Your task to perform on an android device: Add "acer nitro" to the cart on target.com, then select checkout. Image 0: 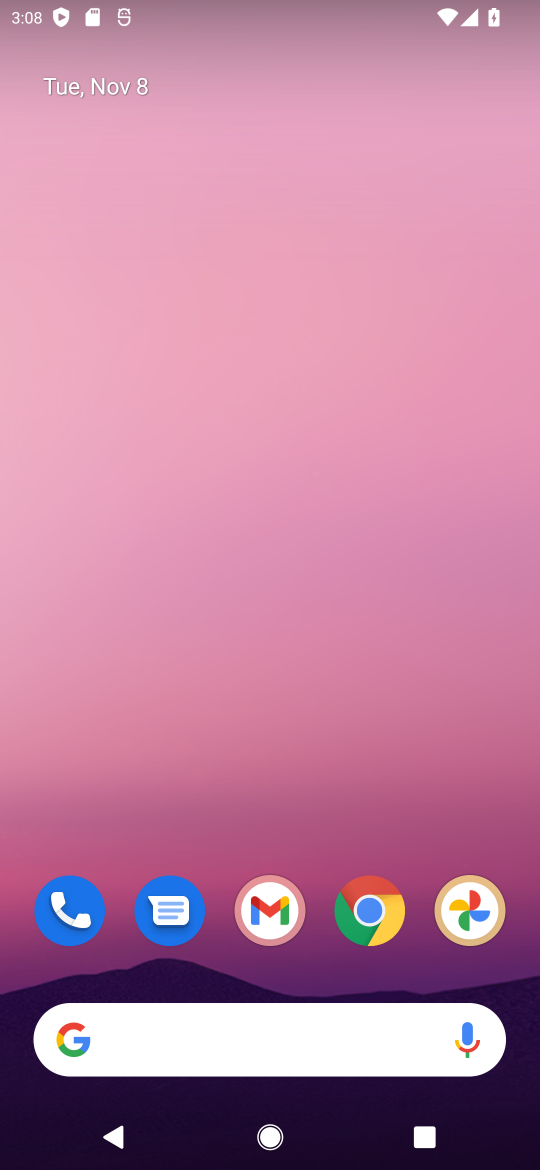
Step 0: drag from (321, 982) to (412, 30)
Your task to perform on an android device: Add "acer nitro" to the cart on target.com, then select checkout. Image 1: 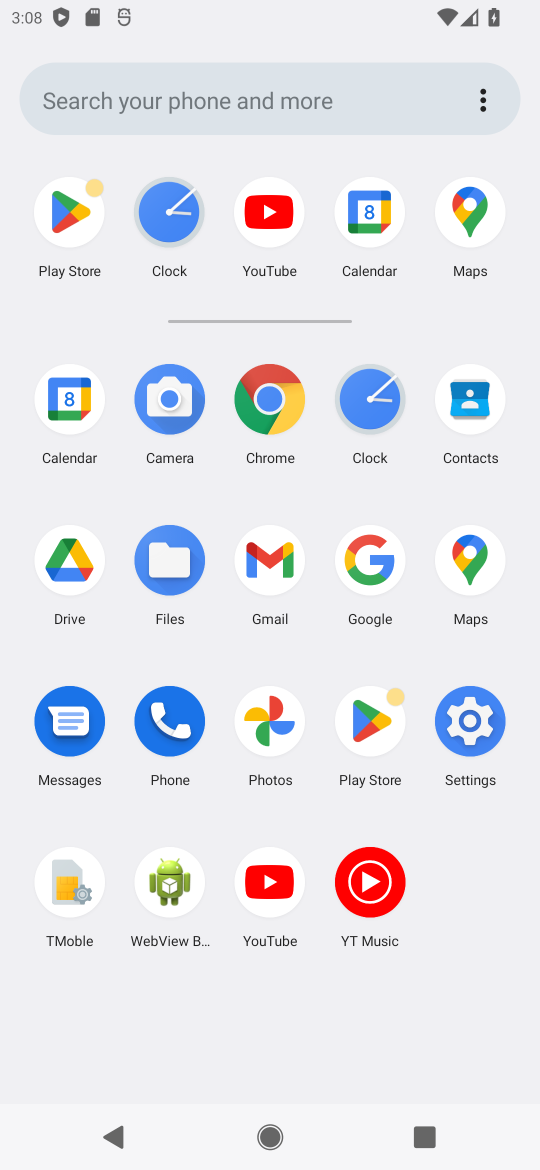
Step 1: click (260, 401)
Your task to perform on an android device: Add "acer nitro" to the cart on target.com, then select checkout. Image 2: 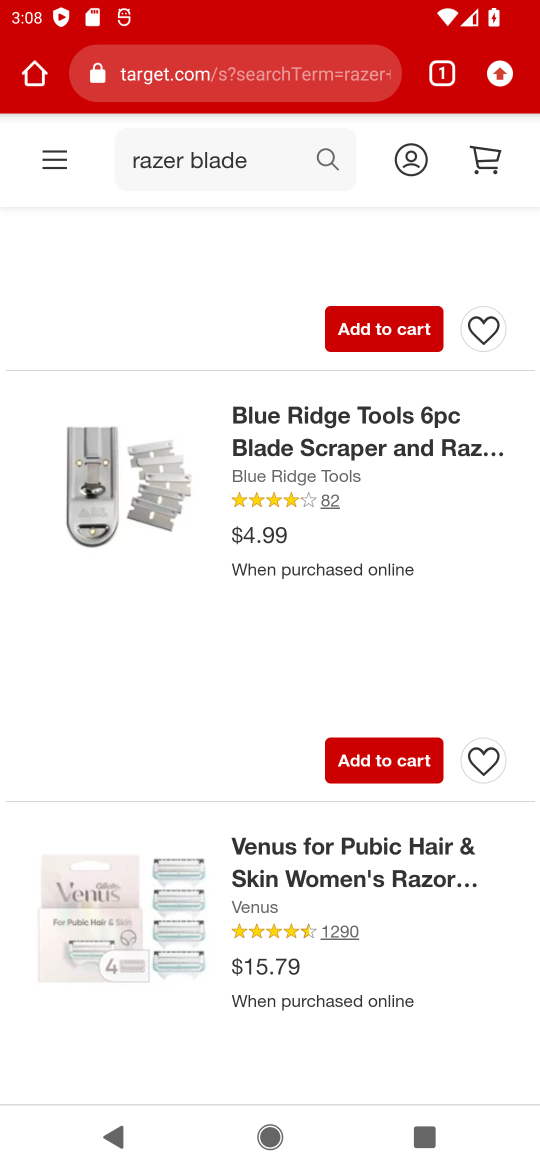
Step 2: click (272, 81)
Your task to perform on an android device: Add "acer nitro" to the cart on target.com, then select checkout. Image 3: 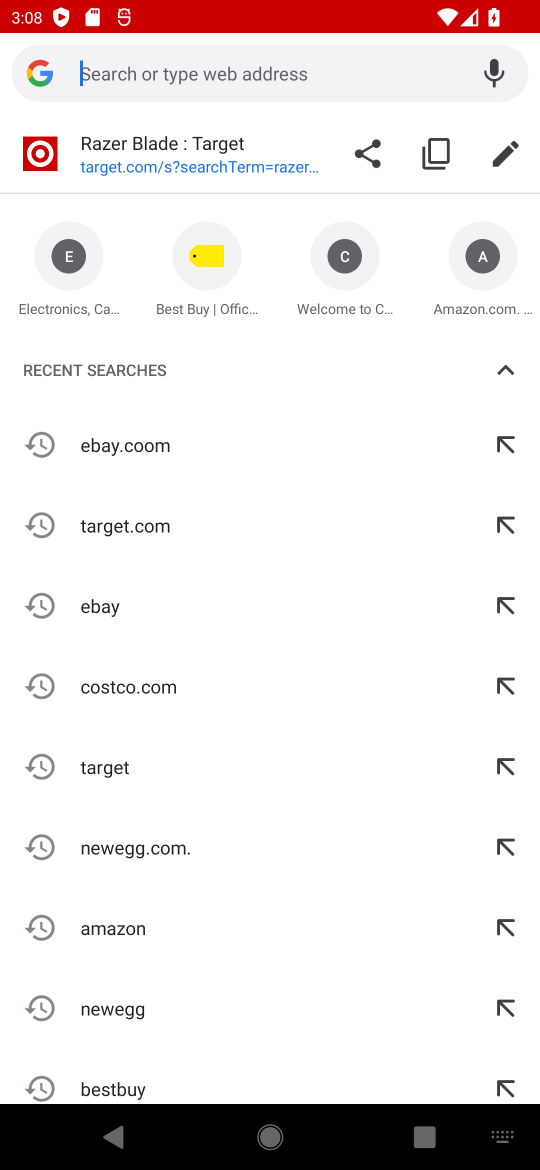
Step 3: type "target.com"
Your task to perform on an android device: Add "acer nitro" to the cart on target.com, then select checkout. Image 4: 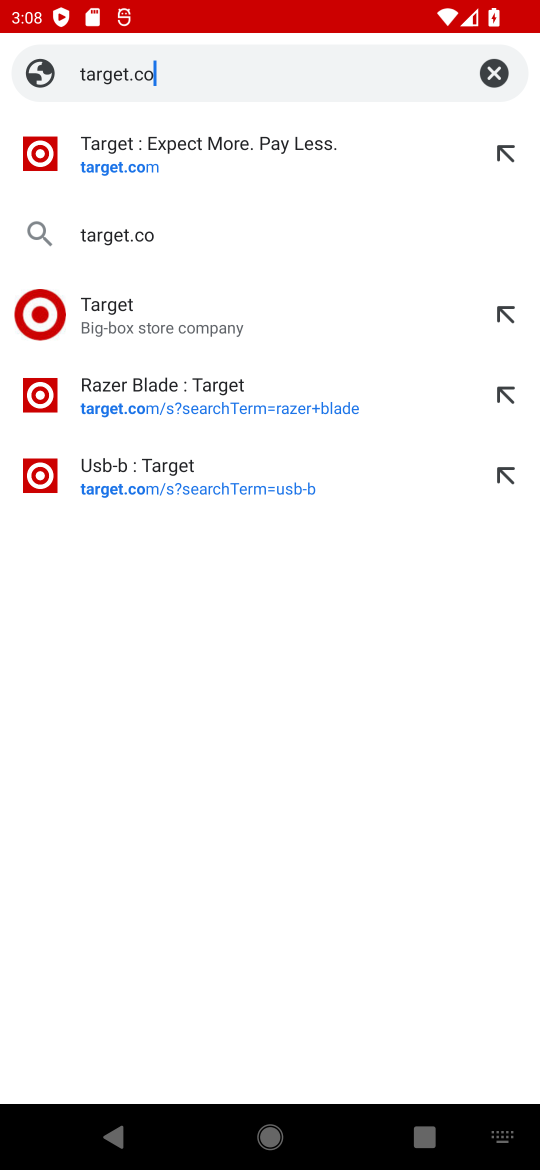
Step 4: press enter
Your task to perform on an android device: Add "acer nitro" to the cart on target.com, then select checkout. Image 5: 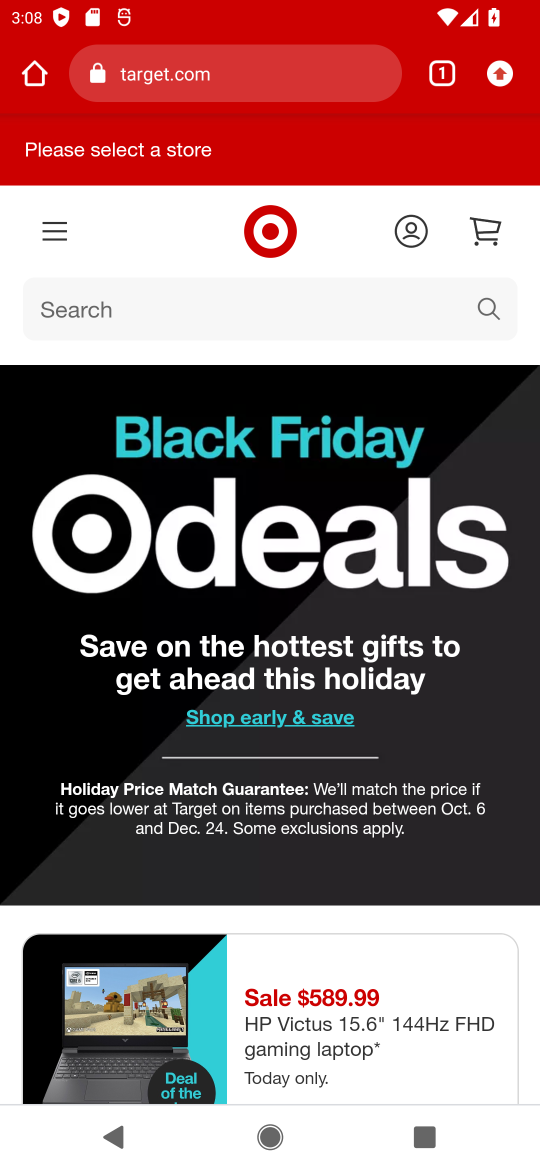
Step 5: click (161, 306)
Your task to perform on an android device: Add "acer nitro" to the cart on target.com, then select checkout. Image 6: 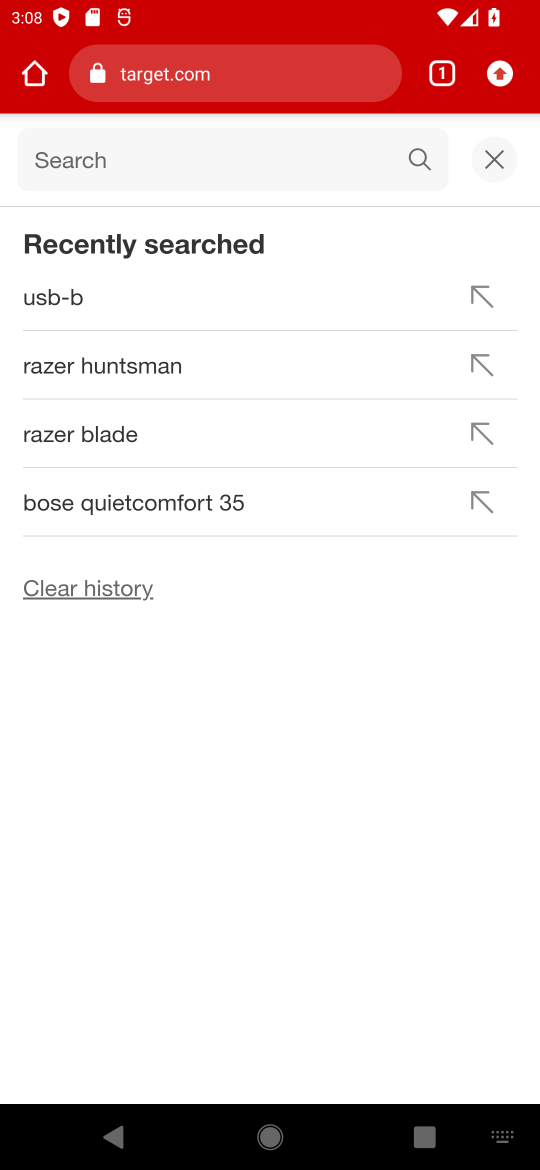
Step 6: type "acer nitro"
Your task to perform on an android device: Add "acer nitro" to the cart on target.com, then select checkout. Image 7: 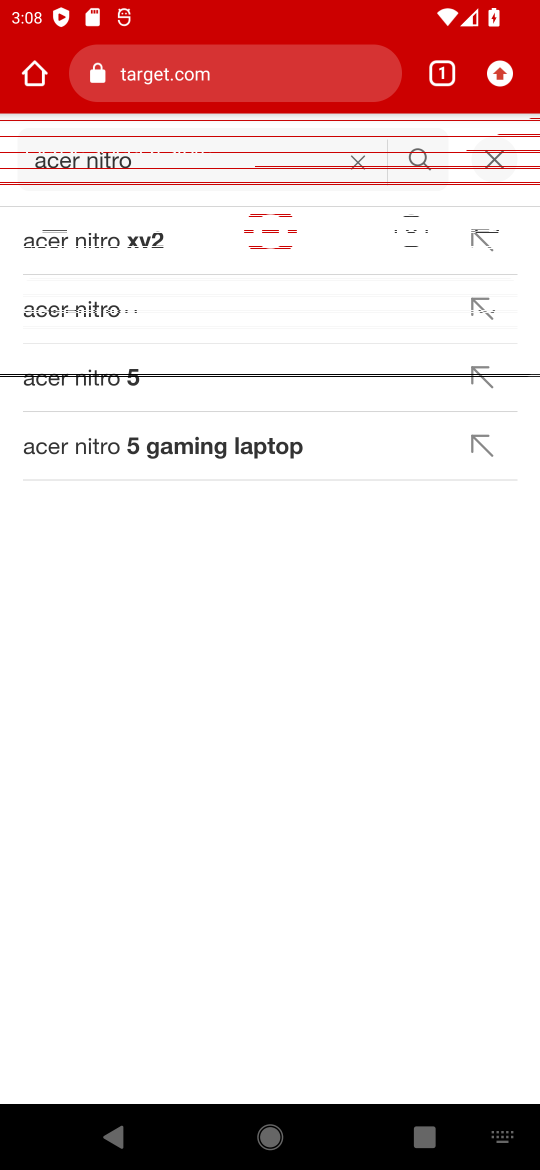
Step 7: press enter
Your task to perform on an android device: Add "acer nitro" to the cart on target.com, then select checkout. Image 8: 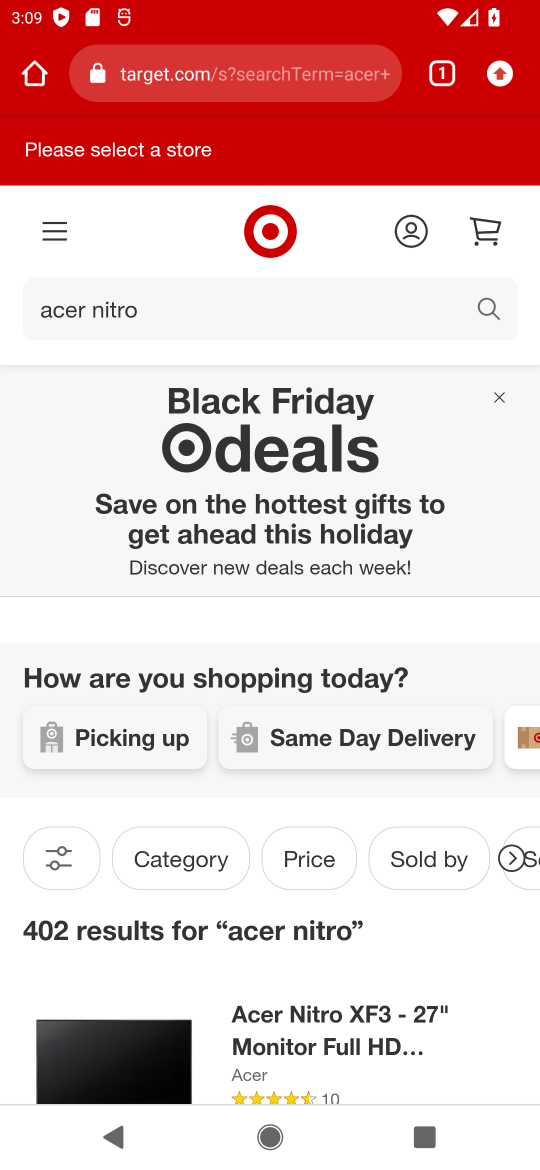
Step 8: drag from (413, 963) to (421, 502)
Your task to perform on an android device: Add "acer nitro" to the cart on target.com, then select checkout. Image 9: 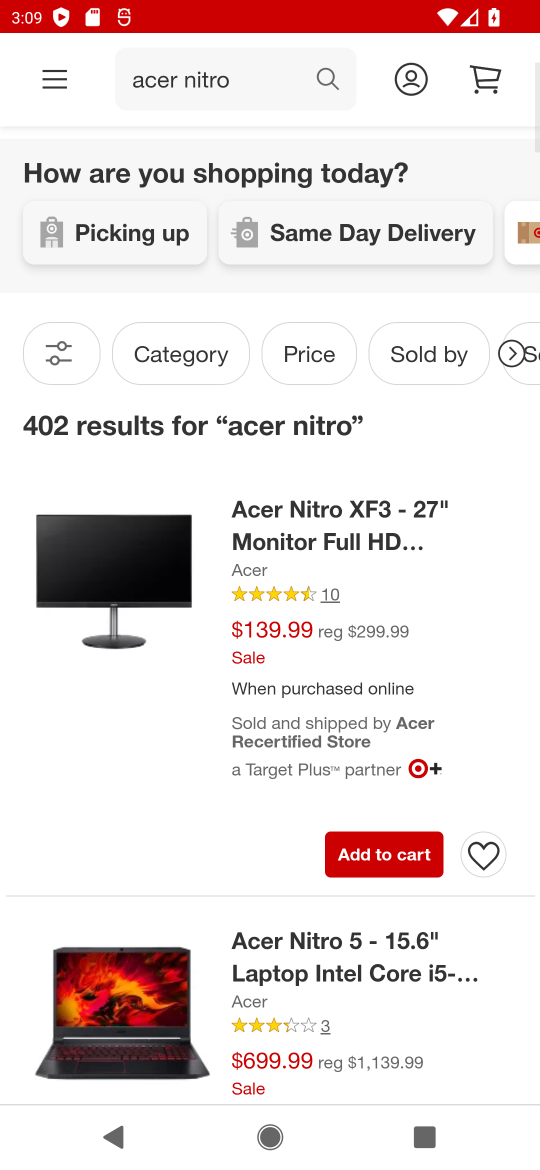
Step 9: click (362, 873)
Your task to perform on an android device: Add "acer nitro" to the cart on target.com, then select checkout. Image 10: 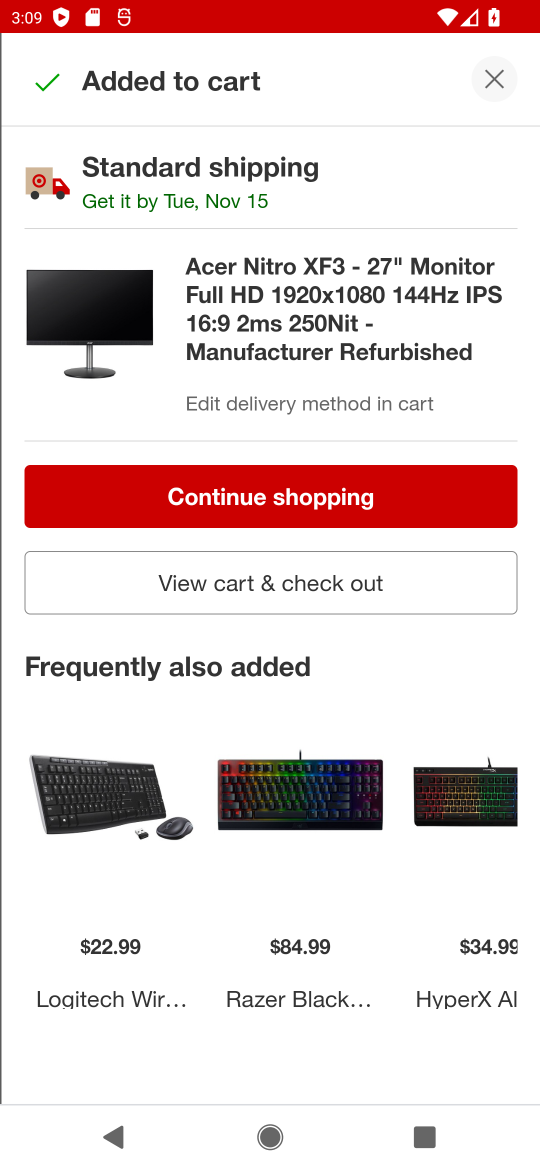
Step 10: click (394, 598)
Your task to perform on an android device: Add "acer nitro" to the cart on target.com, then select checkout. Image 11: 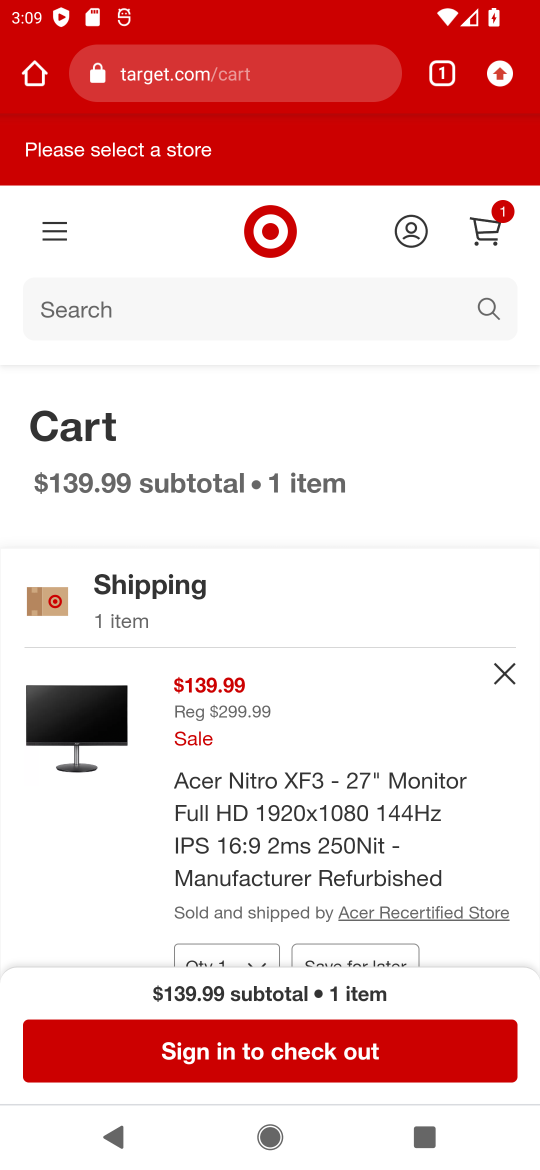
Step 11: task complete